Your task to perform on an android device: open app "Adobe Acrobat Reader: Edit PDF" (install if not already installed) and enter user name: "arthritis@inbox.com" and password: "scythes" Image 0: 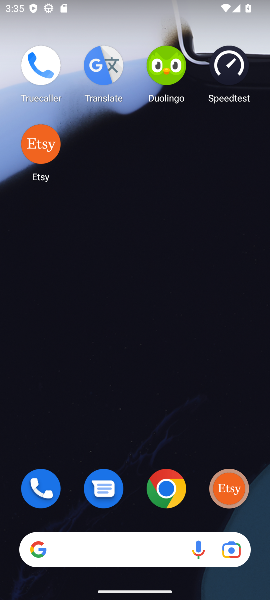
Step 0: drag from (118, 271) to (109, 30)
Your task to perform on an android device: open app "Adobe Acrobat Reader: Edit PDF" (install if not already installed) and enter user name: "arthritis@inbox.com" and password: "scythes" Image 1: 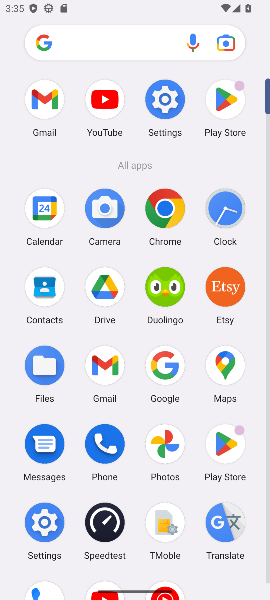
Step 1: click (114, 98)
Your task to perform on an android device: open app "Adobe Acrobat Reader: Edit PDF" (install if not already installed) and enter user name: "arthritis@inbox.com" and password: "scythes" Image 2: 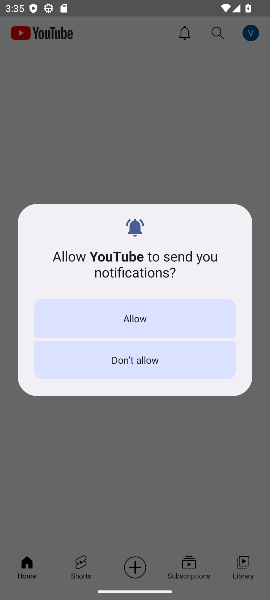
Step 2: press home button
Your task to perform on an android device: open app "Adobe Acrobat Reader: Edit PDF" (install if not already installed) and enter user name: "arthritis@inbox.com" and password: "scythes" Image 3: 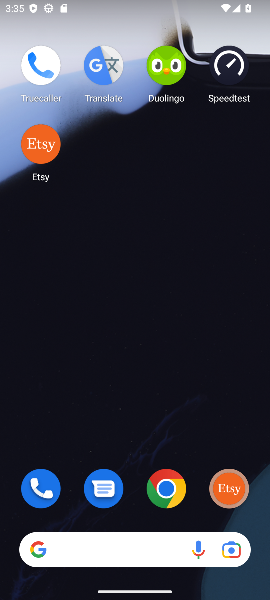
Step 3: drag from (126, 515) to (233, 39)
Your task to perform on an android device: open app "Adobe Acrobat Reader: Edit PDF" (install if not already installed) and enter user name: "arthritis@inbox.com" and password: "scythes" Image 4: 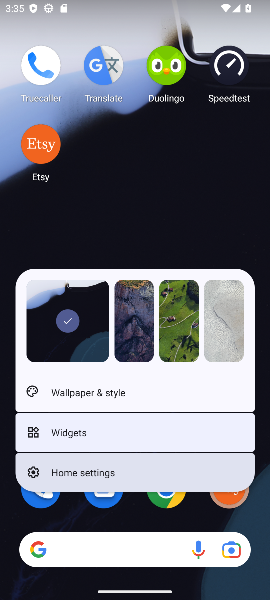
Step 4: click (145, 172)
Your task to perform on an android device: open app "Adobe Acrobat Reader: Edit PDF" (install if not already installed) and enter user name: "arthritis@inbox.com" and password: "scythes" Image 5: 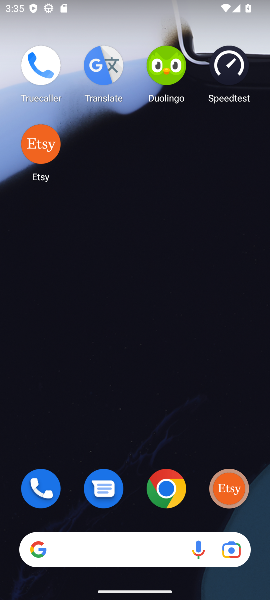
Step 5: drag from (141, 513) to (138, 80)
Your task to perform on an android device: open app "Adobe Acrobat Reader: Edit PDF" (install if not already installed) and enter user name: "arthritis@inbox.com" and password: "scythes" Image 6: 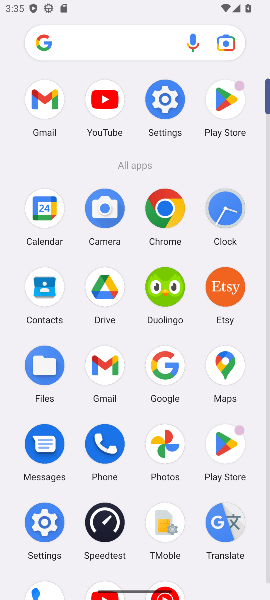
Step 6: click (227, 114)
Your task to perform on an android device: open app "Adobe Acrobat Reader: Edit PDF" (install if not already installed) and enter user name: "arthritis@inbox.com" and password: "scythes" Image 7: 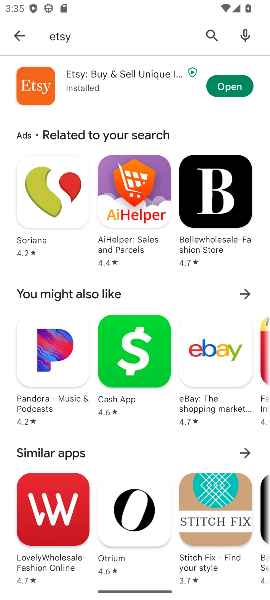
Step 7: click (205, 38)
Your task to perform on an android device: open app "Adobe Acrobat Reader: Edit PDF" (install if not already installed) and enter user name: "arthritis@inbox.com" and password: "scythes" Image 8: 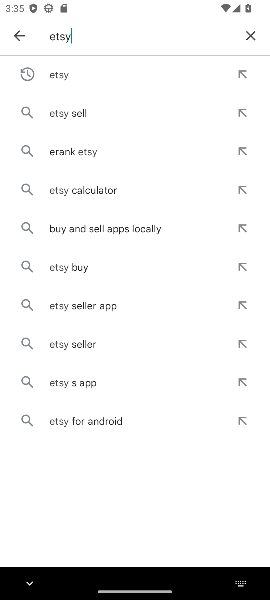
Step 8: click (248, 38)
Your task to perform on an android device: open app "Adobe Acrobat Reader: Edit PDF" (install if not already installed) and enter user name: "arthritis@inbox.com" and password: "scythes" Image 9: 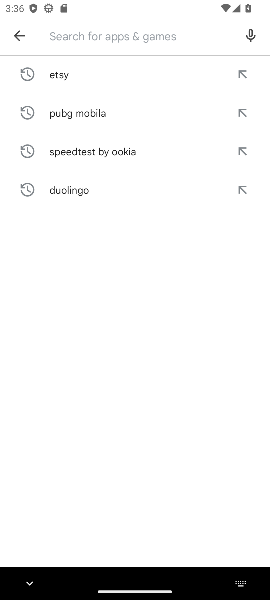
Step 9: type "adobe"
Your task to perform on an android device: open app "Adobe Acrobat Reader: Edit PDF" (install if not already installed) and enter user name: "arthritis@inbox.com" and password: "scythes" Image 10: 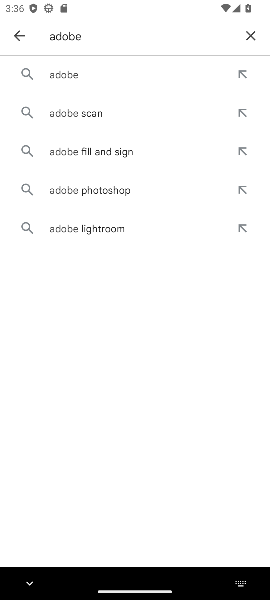
Step 10: click (100, 82)
Your task to perform on an android device: open app "Adobe Acrobat Reader: Edit PDF" (install if not already installed) and enter user name: "arthritis@inbox.com" and password: "scythes" Image 11: 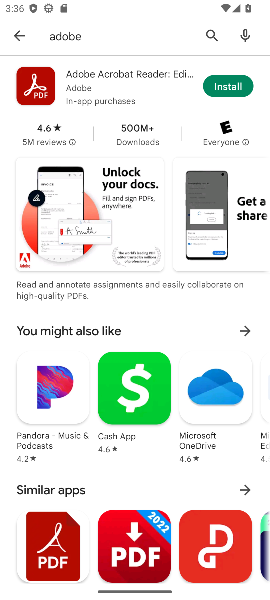
Step 11: click (214, 83)
Your task to perform on an android device: open app "Adobe Acrobat Reader: Edit PDF" (install if not already installed) and enter user name: "arthritis@inbox.com" and password: "scythes" Image 12: 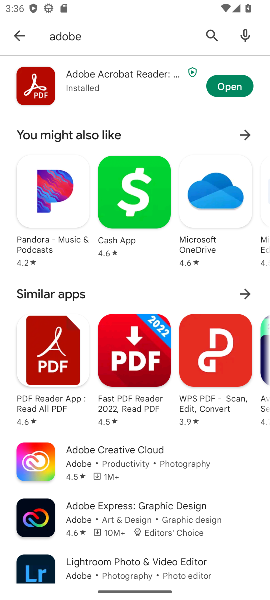
Step 12: click (240, 80)
Your task to perform on an android device: open app "Adobe Acrobat Reader: Edit PDF" (install if not already installed) and enter user name: "arthritis@inbox.com" and password: "scythes" Image 13: 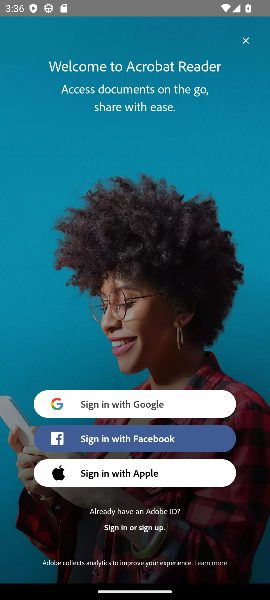
Step 13: press home button
Your task to perform on an android device: open app "Adobe Acrobat Reader: Edit PDF" (install if not already installed) and enter user name: "arthritis@inbox.com" and password: "scythes" Image 14: 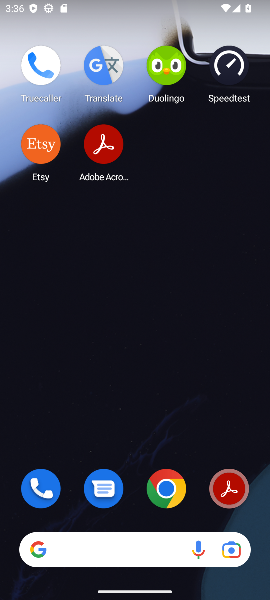
Step 14: click (221, 486)
Your task to perform on an android device: open app "Adobe Acrobat Reader: Edit PDF" (install if not already installed) and enter user name: "arthritis@inbox.com" and password: "scythes" Image 15: 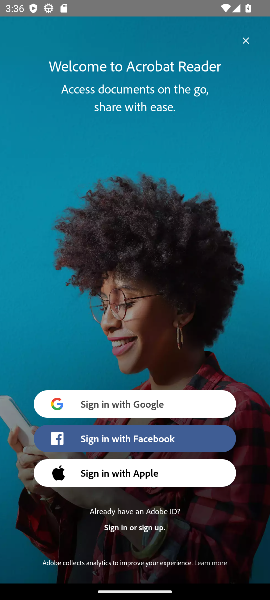
Step 15: click (114, 530)
Your task to perform on an android device: open app "Adobe Acrobat Reader: Edit PDF" (install if not already installed) and enter user name: "arthritis@inbox.com" and password: "scythes" Image 16: 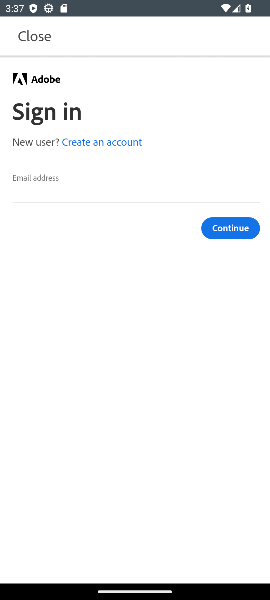
Step 16: click (63, 171)
Your task to perform on an android device: open app "Adobe Acrobat Reader: Edit PDF" (install if not already installed) and enter user name: "arthritis@inbox.com" and password: "scythes" Image 17: 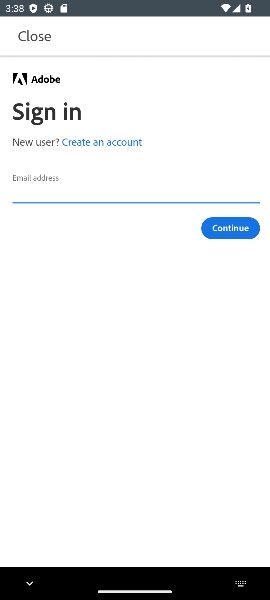
Step 17: type "arthritis@inbox.com"
Your task to perform on an android device: open app "Adobe Acrobat Reader: Edit PDF" (install if not already installed) and enter user name: "arthritis@inbox.com" and password: "scythes" Image 18: 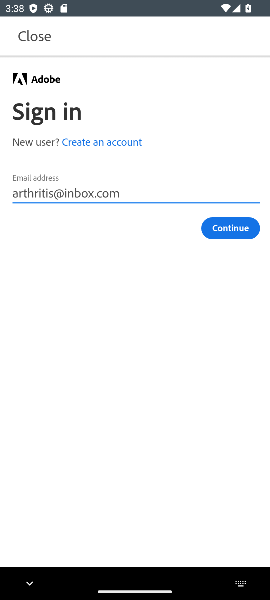
Step 18: click (234, 231)
Your task to perform on an android device: open app "Adobe Acrobat Reader: Edit PDF" (install if not already installed) and enter user name: "arthritis@inbox.com" and password: "scythes" Image 19: 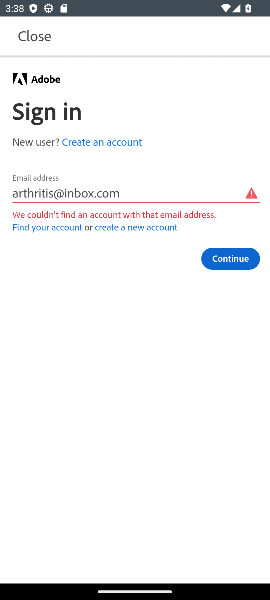
Step 19: task complete